Your task to perform on an android device: Open the stopwatch Image 0: 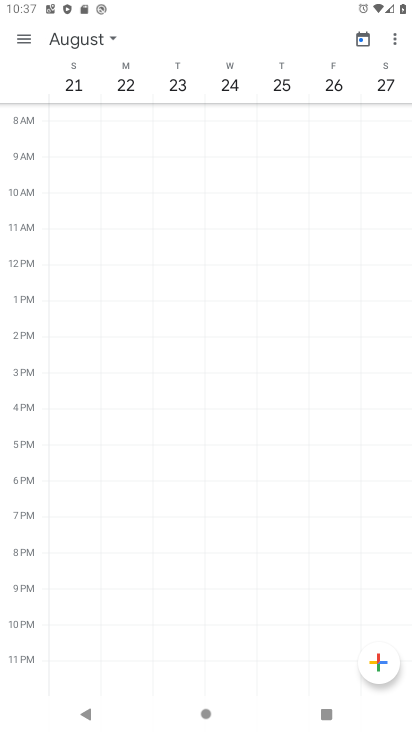
Step 0: press home button
Your task to perform on an android device: Open the stopwatch Image 1: 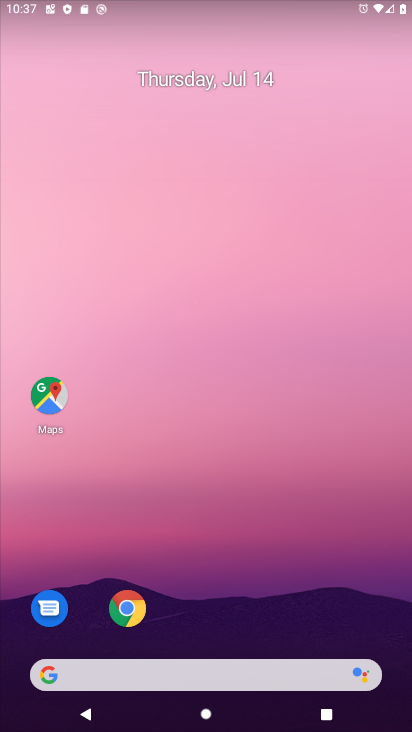
Step 1: drag from (236, 717) to (236, 257)
Your task to perform on an android device: Open the stopwatch Image 2: 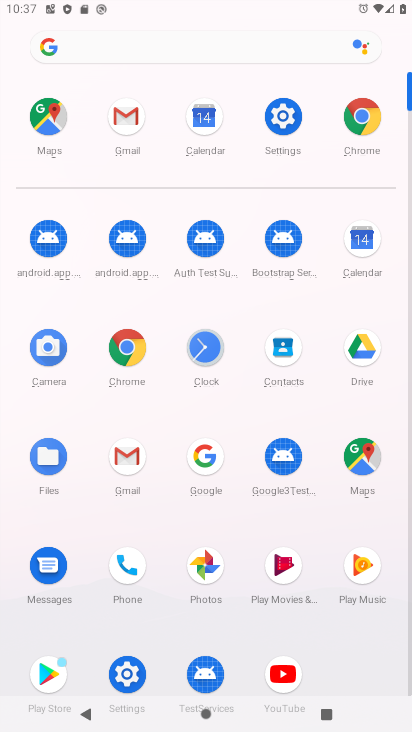
Step 2: click (207, 342)
Your task to perform on an android device: Open the stopwatch Image 3: 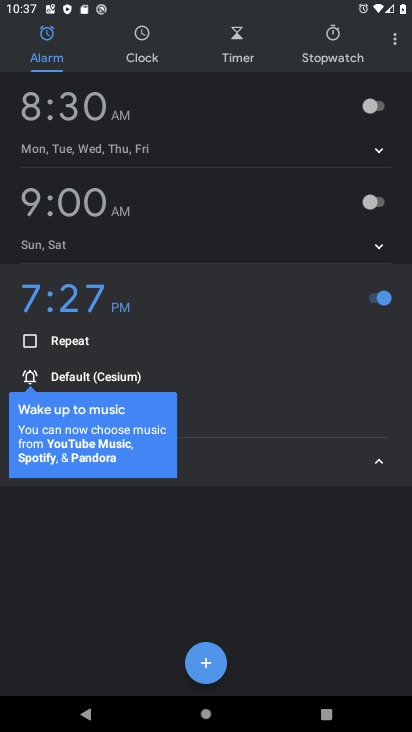
Step 3: click (329, 48)
Your task to perform on an android device: Open the stopwatch Image 4: 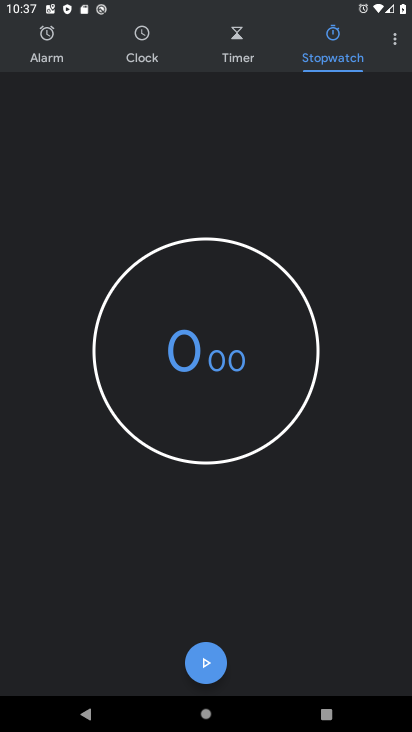
Step 4: task complete